Your task to perform on an android device: turn off location Image 0: 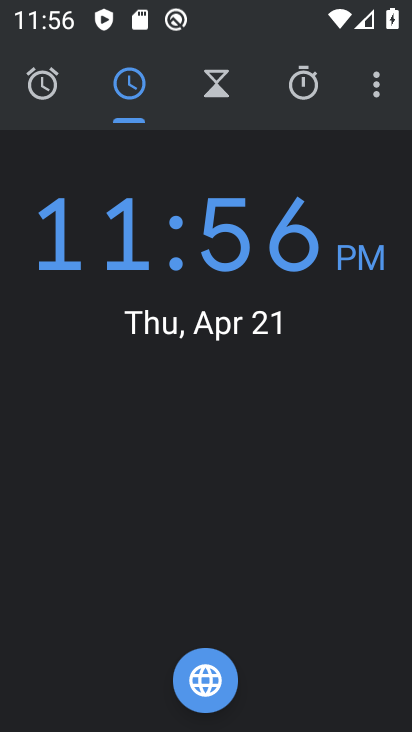
Step 0: press home button
Your task to perform on an android device: turn off location Image 1: 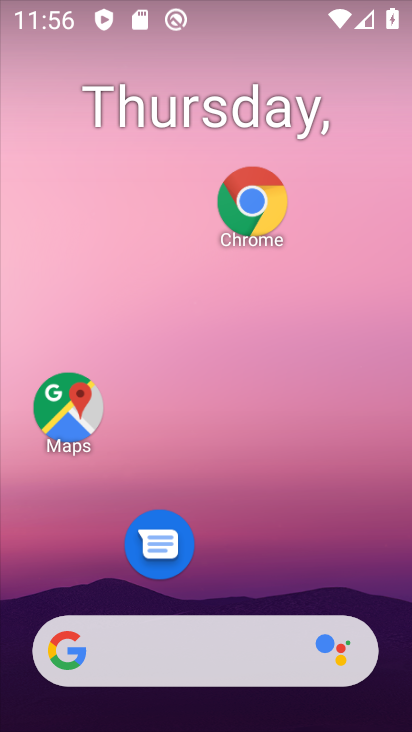
Step 1: drag from (214, 598) to (142, 80)
Your task to perform on an android device: turn off location Image 2: 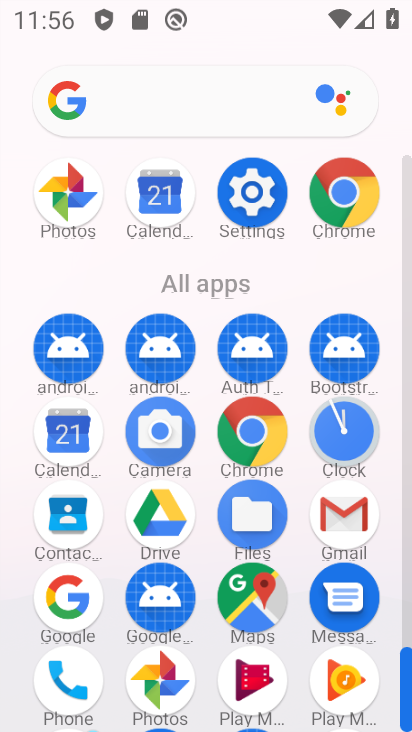
Step 2: click (266, 190)
Your task to perform on an android device: turn off location Image 3: 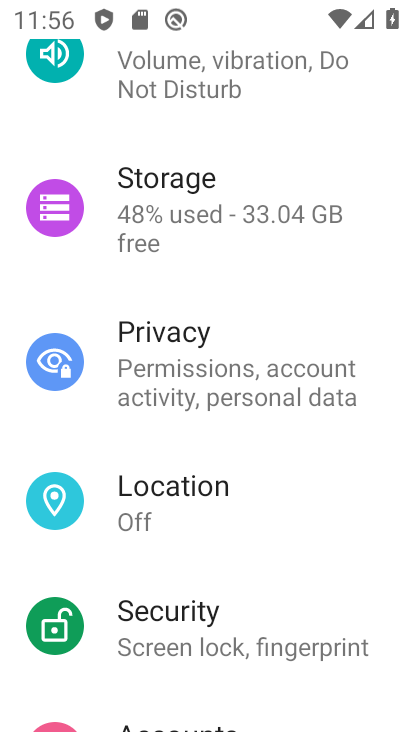
Step 3: click (242, 489)
Your task to perform on an android device: turn off location Image 4: 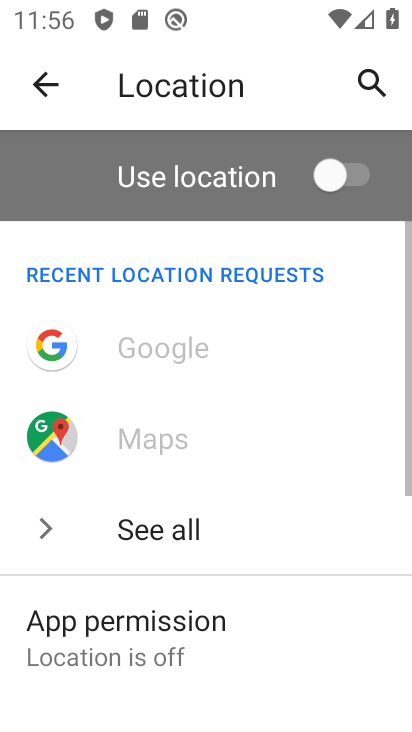
Step 4: task complete